Your task to perform on an android device: Turn on the flashlight Image 0: 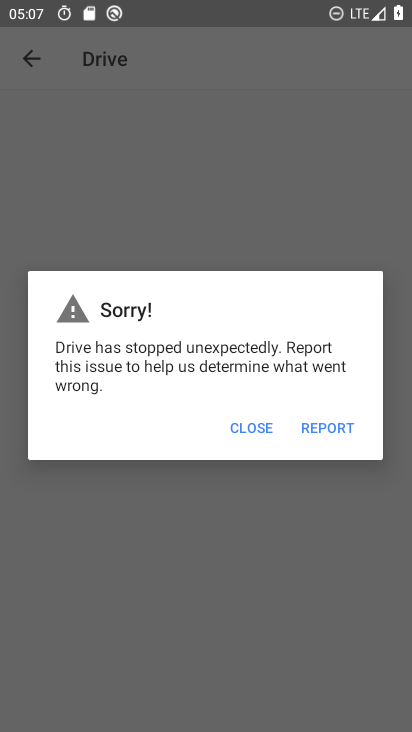
Step 0: press home button
Your task to perform on an android device: Turn on the flashlight Image 1: 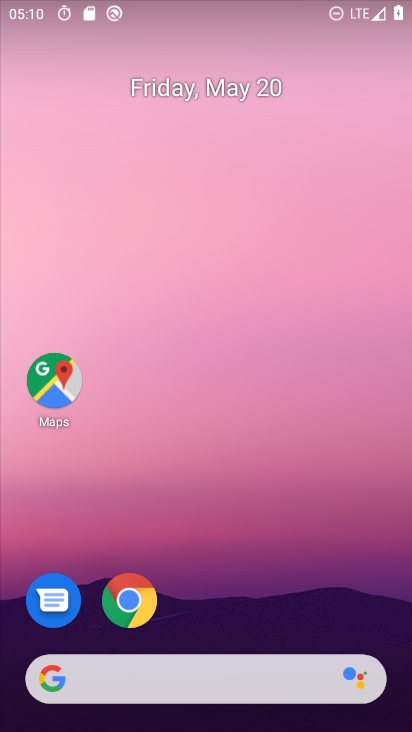
Step 1: drag from (284, 572) to (337, 93)
Your task to perform on an android device: Turn on the flashlight Image 2: 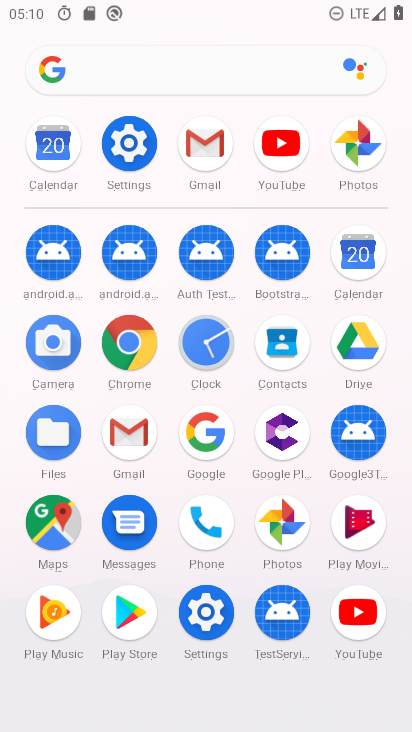
Step 2: click (129, 130)
Your task to perform on an android device: Turn on the flashlight Image 3: 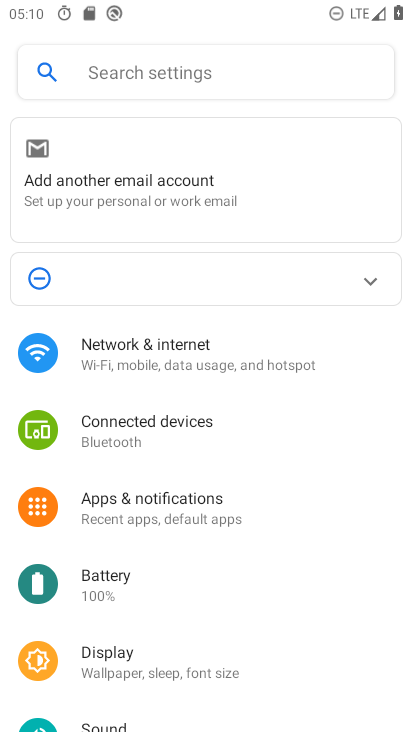
Step 3: click (107, 75)
Your task to perform on an android device: Turn on the flashlight Image 4: 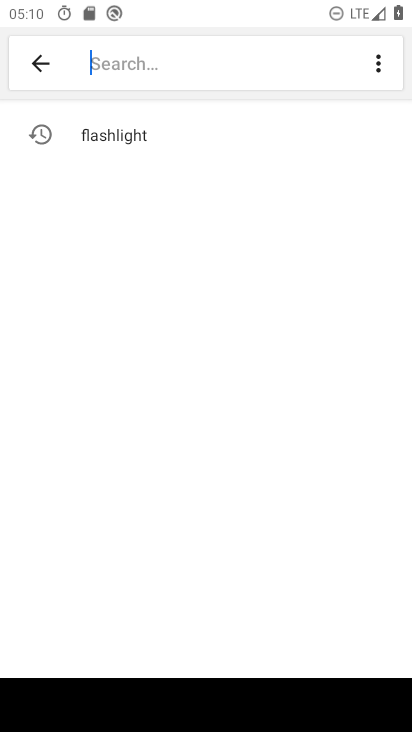
Step 4: type "fl"
Your task to perform on an android device: Turn on the flashlight Image 5: 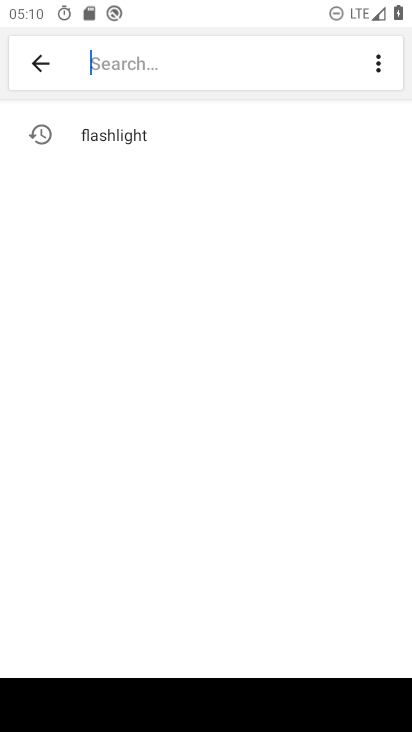
Step 5: click (97, 152)
Your task to perform on an android device: Turn on the flashlight Image 6: 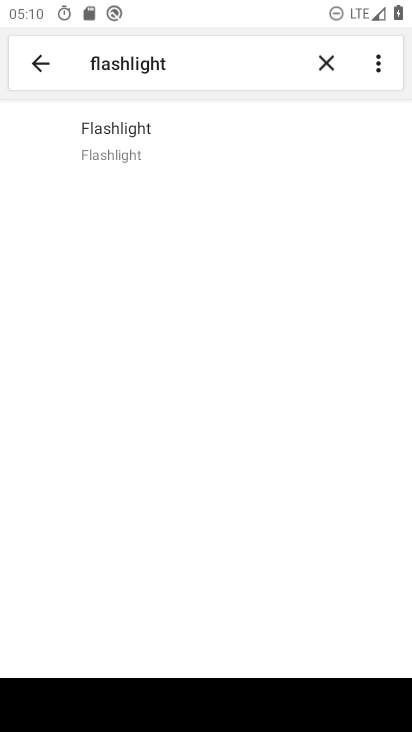
Step 6: click (127, 147)
Your task to perform on an android device: Turn on the flashlight Image 7: 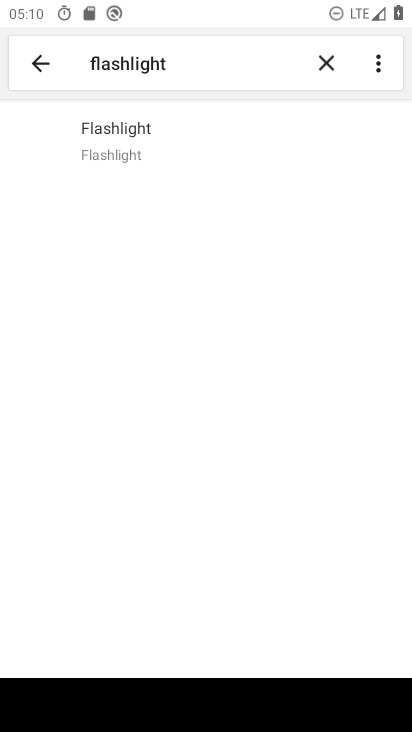
Step 7: task complete